Your task to perform on an android device: Open internet settings Image 0: 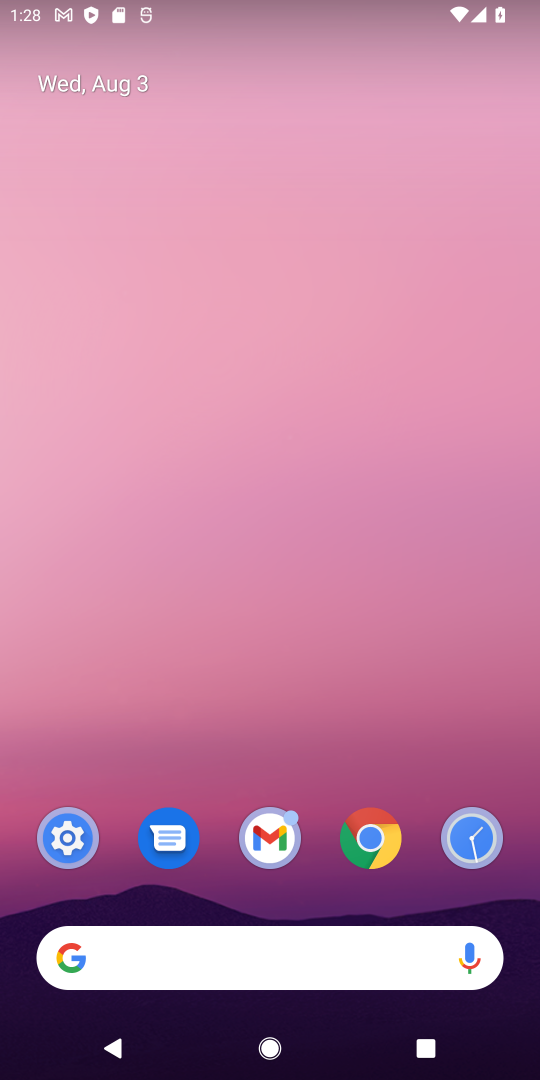
Step 0: drag from (235, 816) to (341, 57)
Your task to perform on an android device: Open internet settings Image 1: 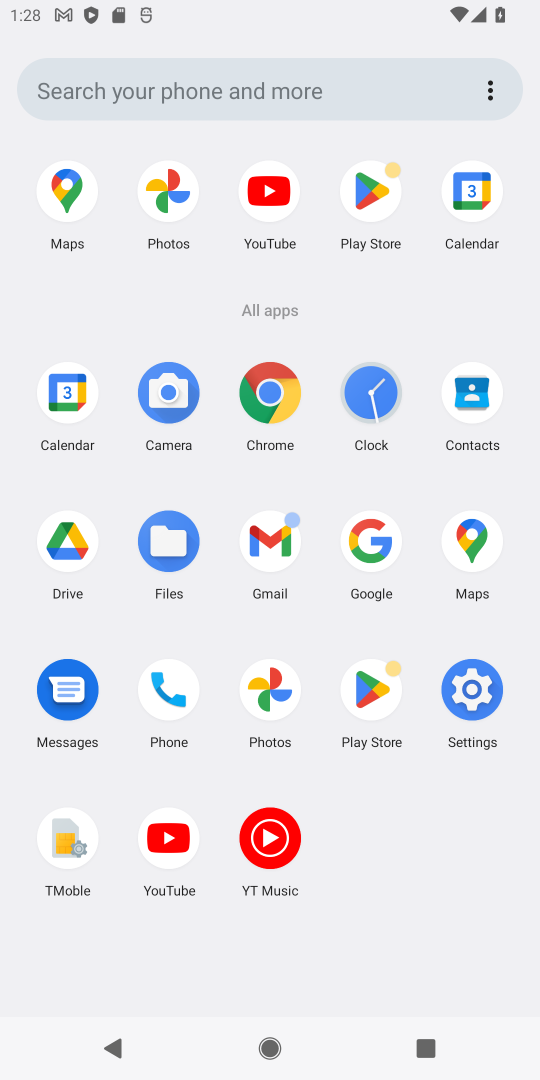
Step 1: click (483, 683)
Your task to perform on an android device: Open internet settings Image 2: 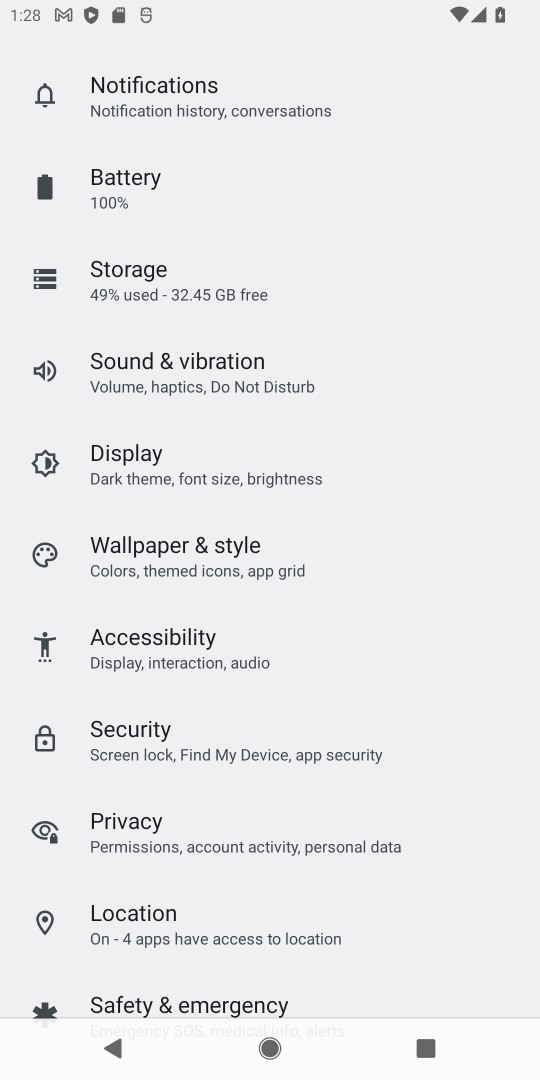
Step 2: drag from (332, 138) to (261, 973)
Your task to perform on an android device: Open internet settings Image 3: 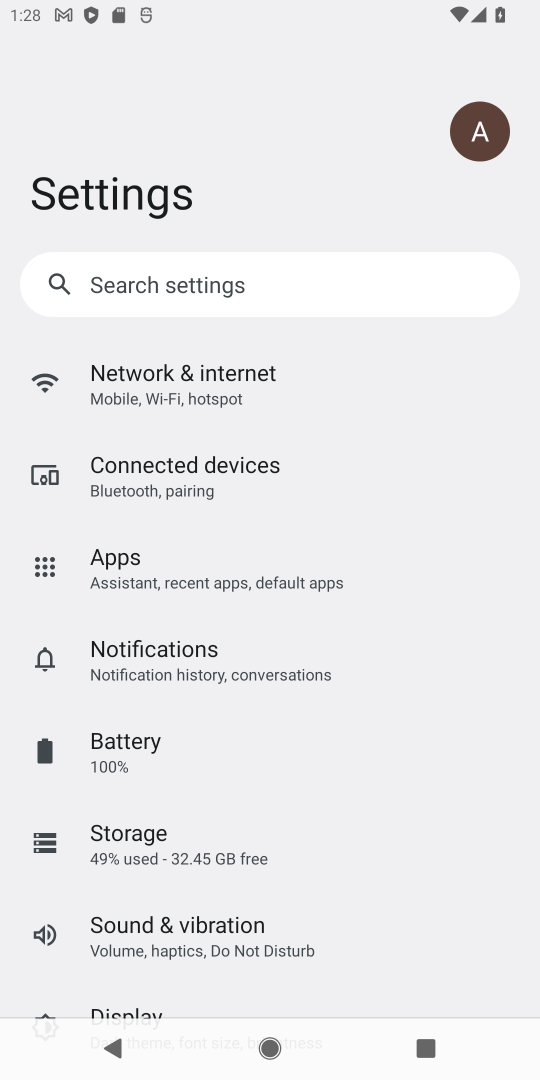
Step 3: click (198, 381)
Your task to perform on an android device: Open internet settings Image 4: 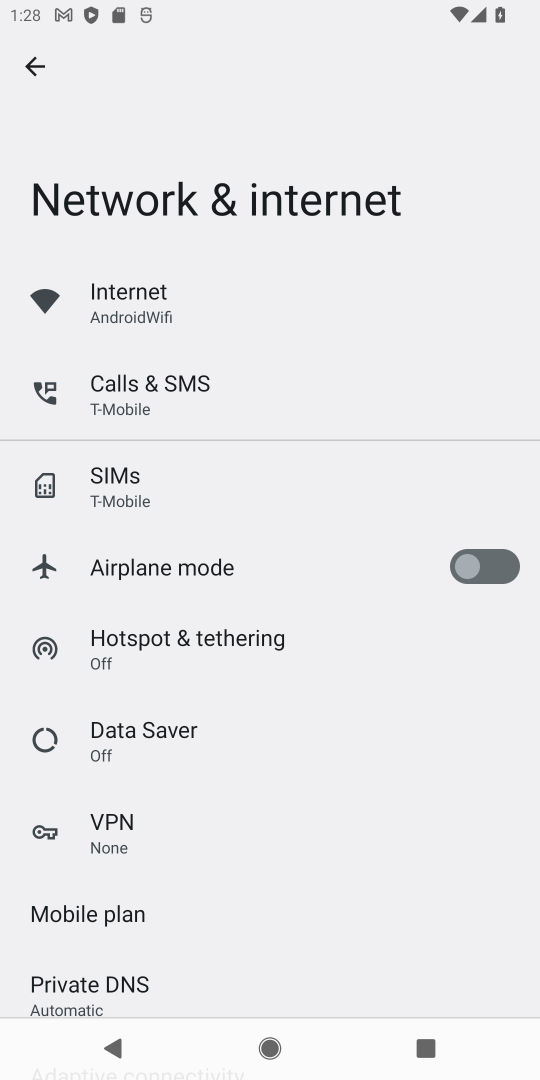
Step 4: click (178, 313)
Your task to perform on an android device: Open internet settings Image 5: 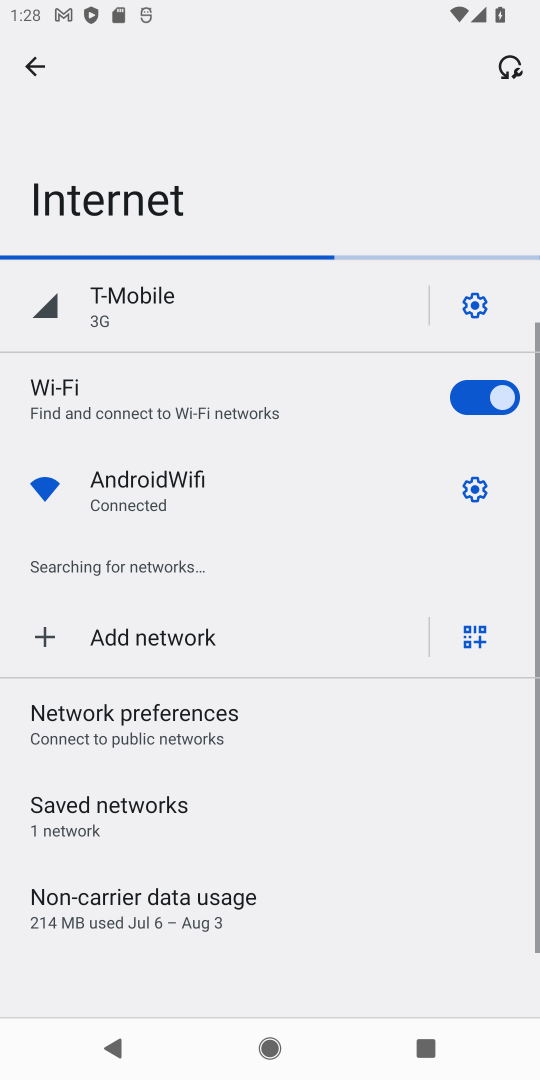
Step 5: task complete